Your task to perform on an android device: Open Youtube and go to "Your channel" Image 0: 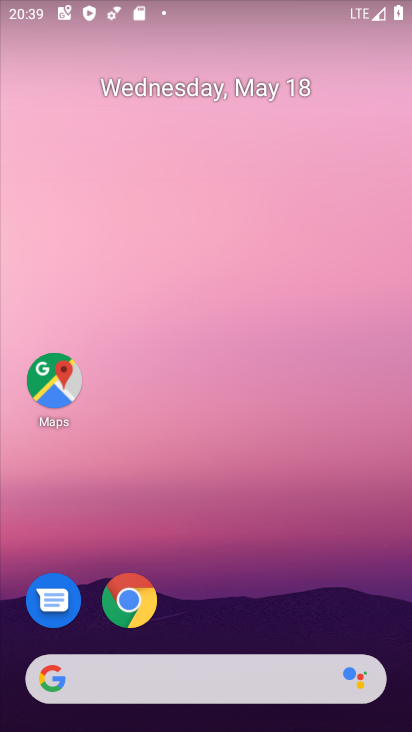
Step 0: drag from (239, 554) to (286, 144)
Your task to perform on an android device: Open Youtube and go to "Your channel" Image 1: 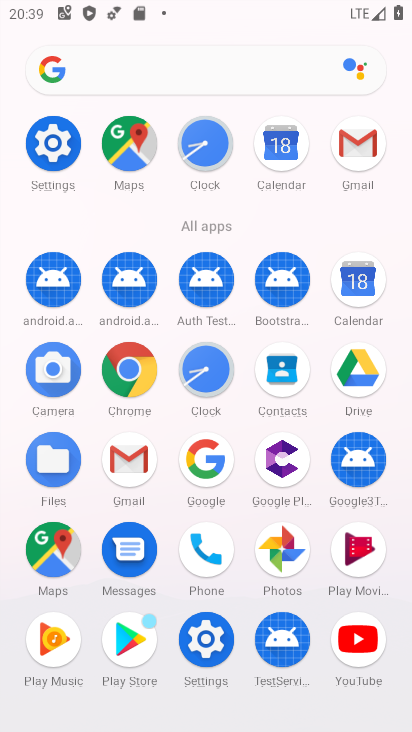
Step 1: click (352, 636)
Your task to perform on an android device: Open Youtube and go to "Your channel" Image 2: 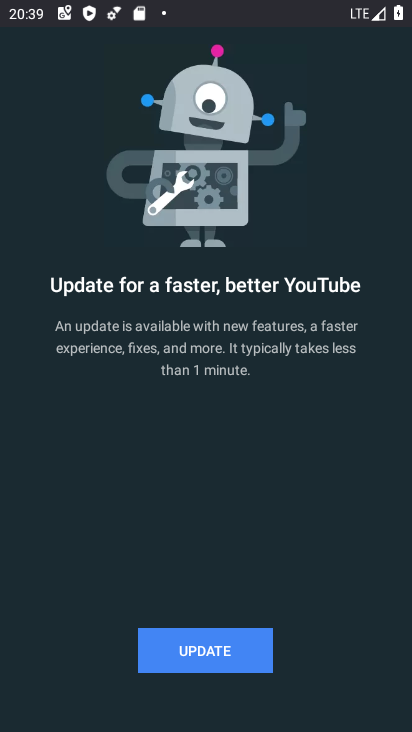
Step 2: click (225, 644)
Your task to perform on an android device: Open Youtube and go to "Your channel" Image 3: 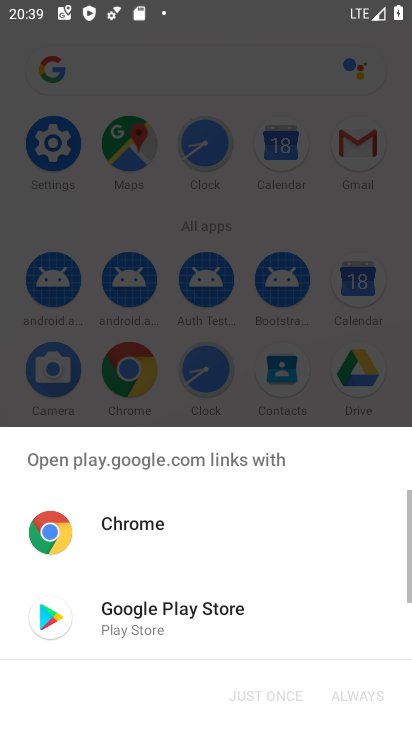
Step 3: click (199, 615)
Your task to perform on an android device: Open Youtube and go to "Your channel" Image 4: 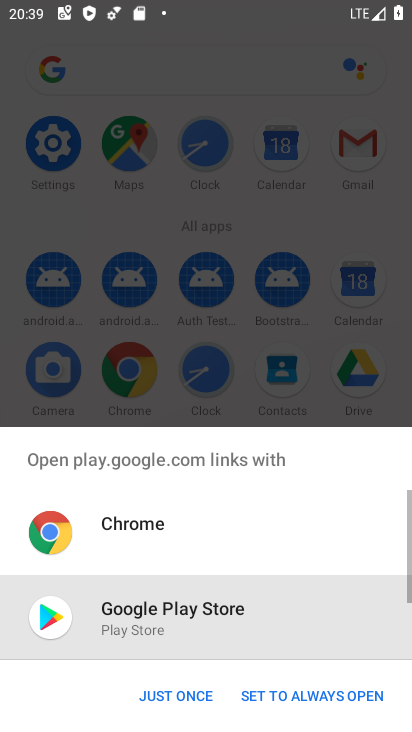
Step 4: click (203, 688)
Your task to perform on an android device: Open Youtube and go to "Your channel" Image 5: 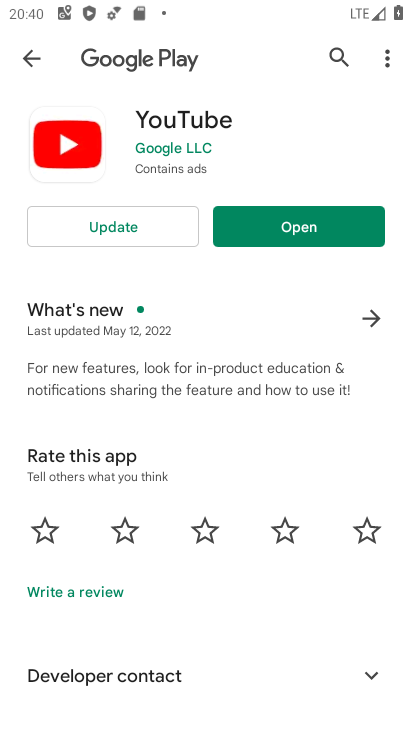
Step 5: click (99, 223)
Your task to perform on an android device: Open Youtube and go to "Your channel" Image 6: 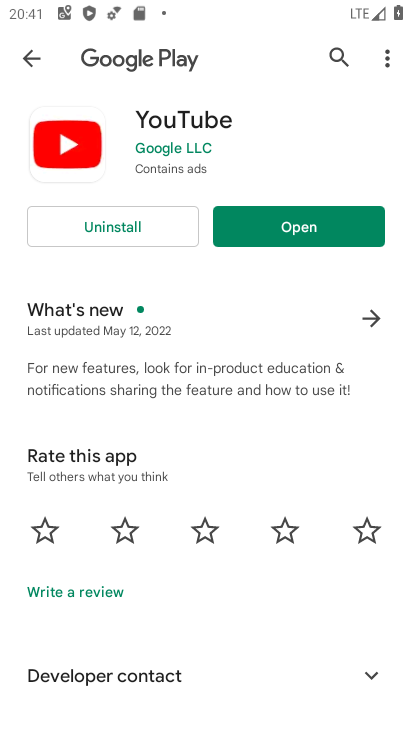
Step 6: click (301, 228)
Your task to perform on an android device: Open Youtube and go to "Your channel" Image 7: 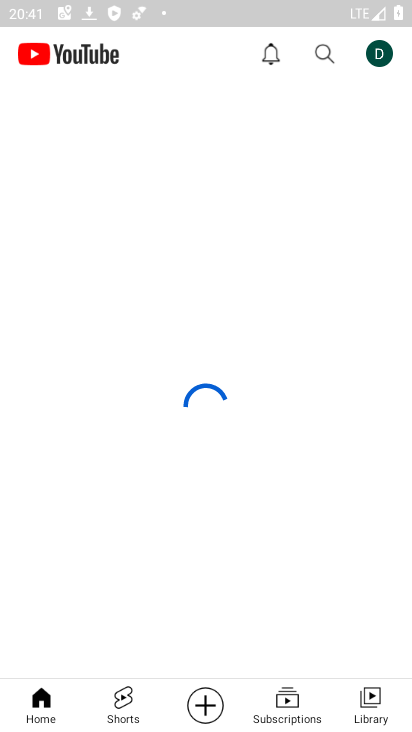
Step 7: click (379, 43)
Your task to perform on an android device: Open Youtube and go to "Your channel" Image 8: 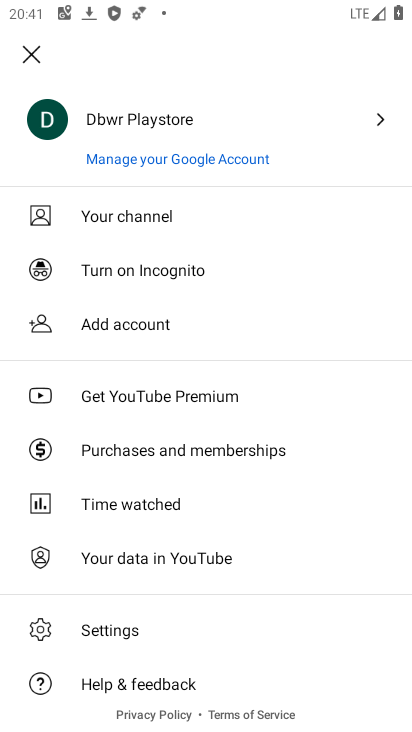
Step 8: click (121, 202)
Your task to perform on an android device: Open Youtube and go to "Your channel" Image 9: 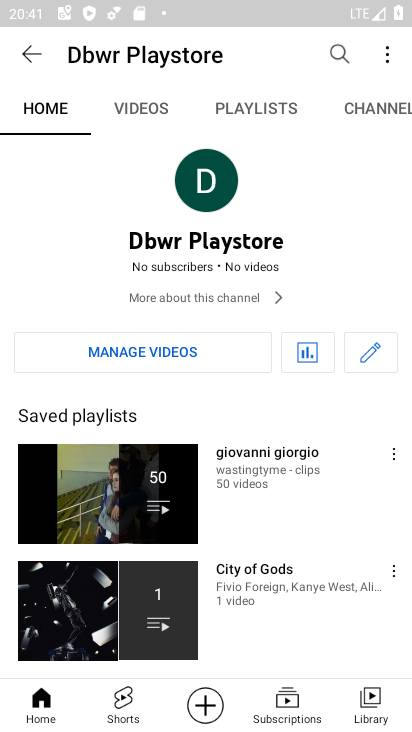
Step 9: task complete